Your task to perform on an android device: open wifi settings Image 0: 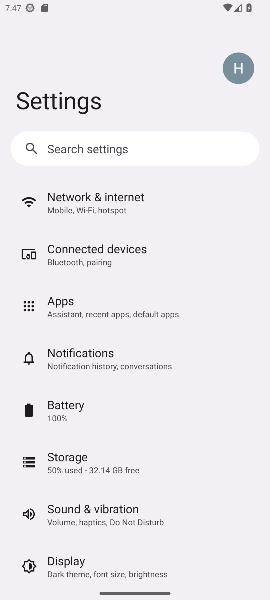
Step 0: click (110, 201)
Your task to perform on an android device: open wifi settings Image 1: 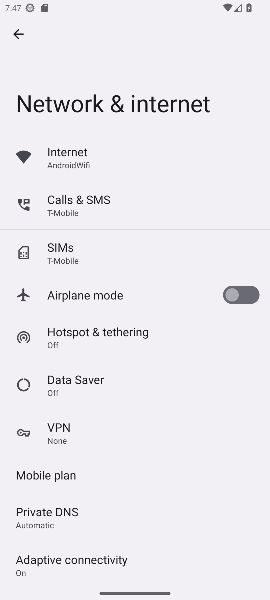
Step 1: click (125, 161)
Your task to perform on an android device: open wifi settings Image 2: 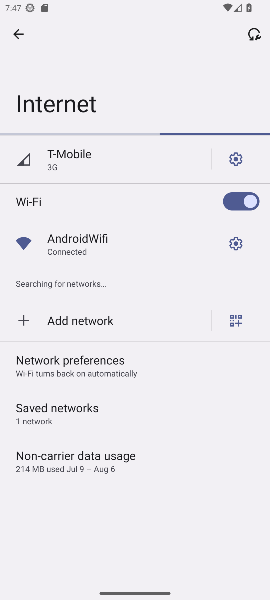
Step 2: click (101, 248)
Your task to perform on an android device: open wifi settings Image 3: 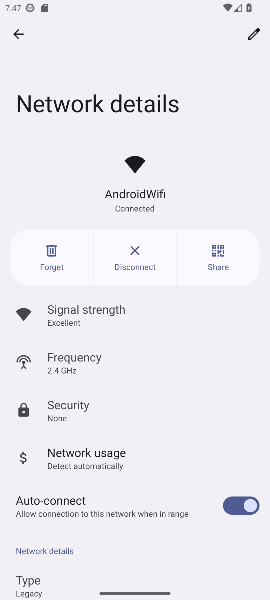
Step 3: task complete